Your task to perform on an android device: What's the weather like in Moscow? Image 0: 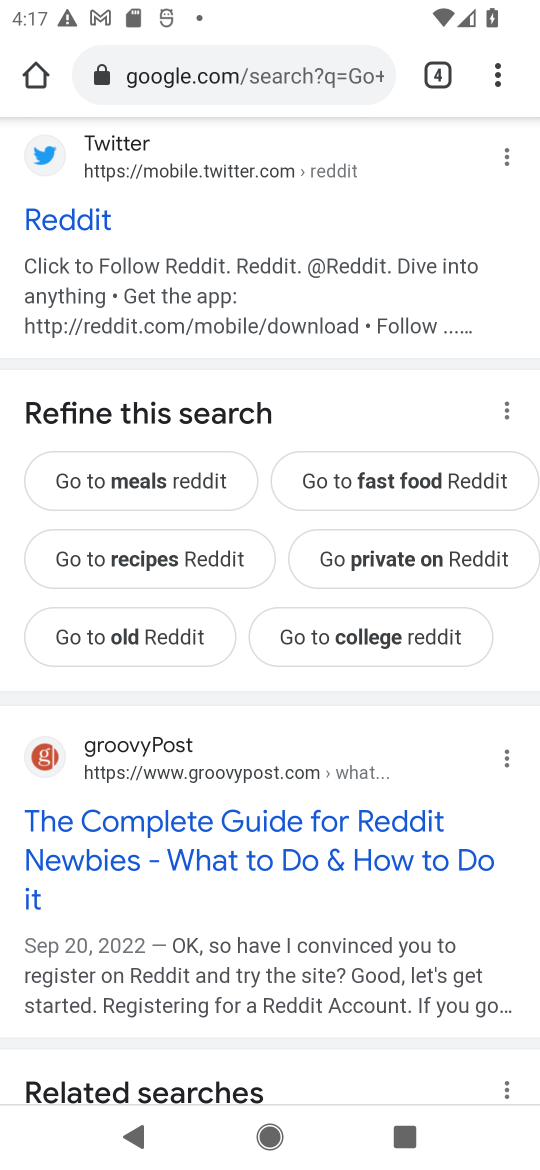
Step 0: press home button
Your task to perform on an android device: What's the weather like in Moscow? Image 1: 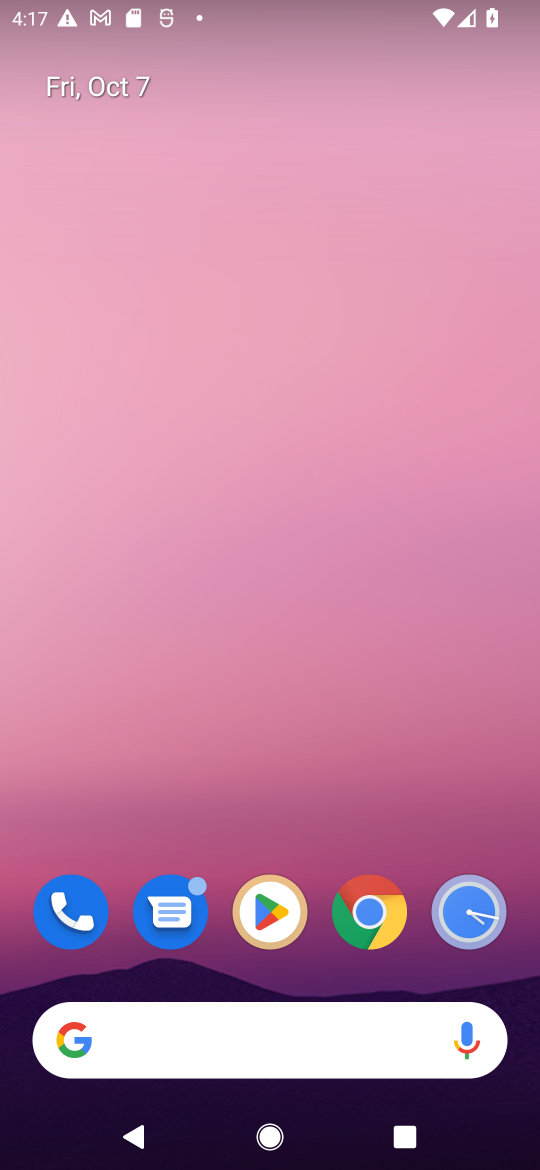
Step 1: drag from (208, 914) to (262, 453)
Your task to perform on an android device: What's the weather like in Moscow? Image 2: 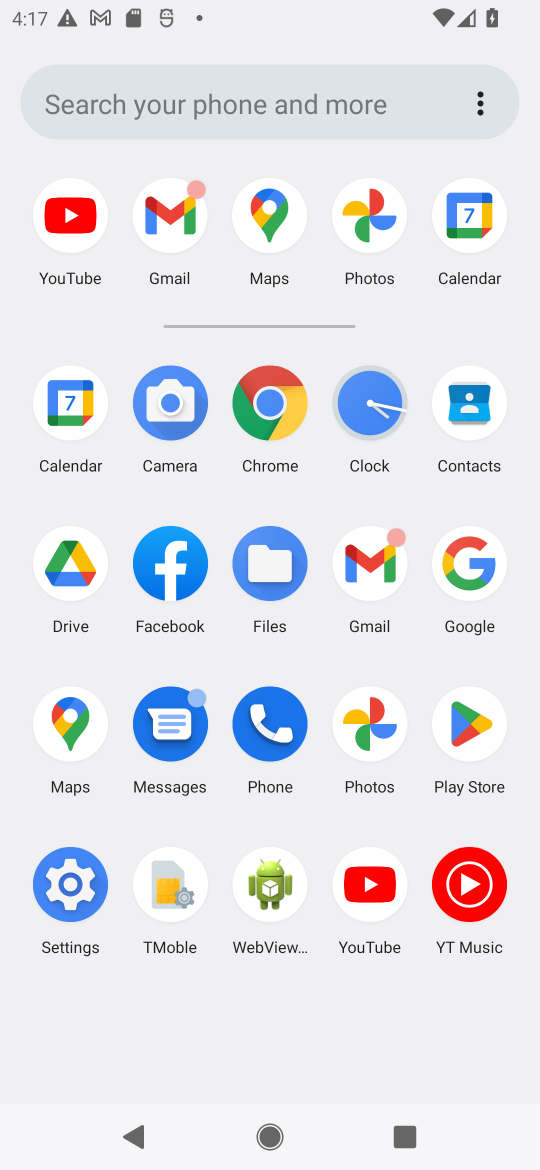
Step 2: click (468, 575)
Your task to perform on an android device: What's the weather like in Moscow? Image 3: 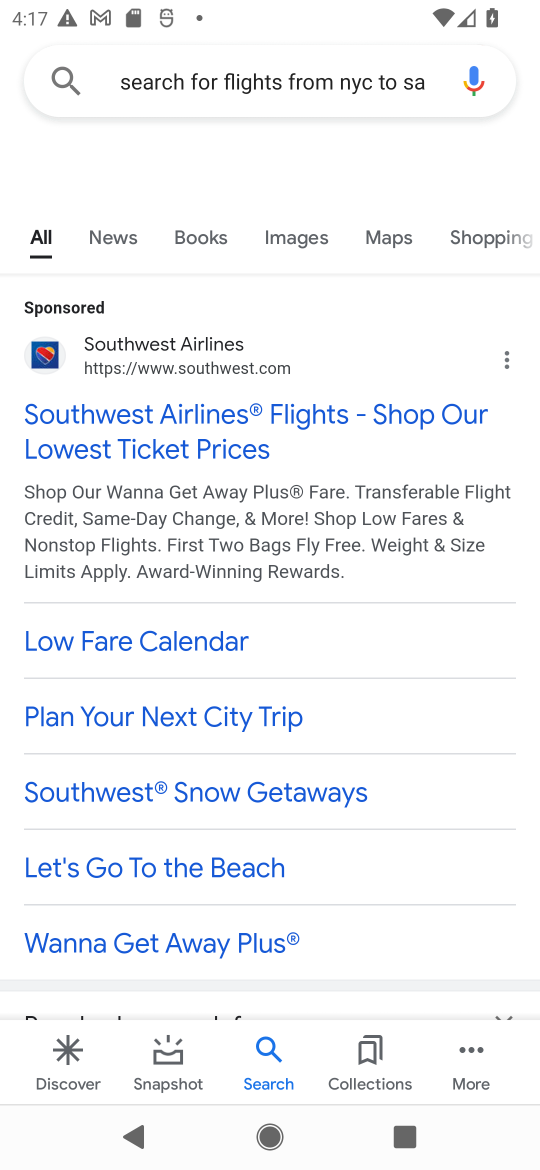
Step 3: click (337, 78)
Your task to perform on an android device: What's the weather like in Moscow? Image 4: 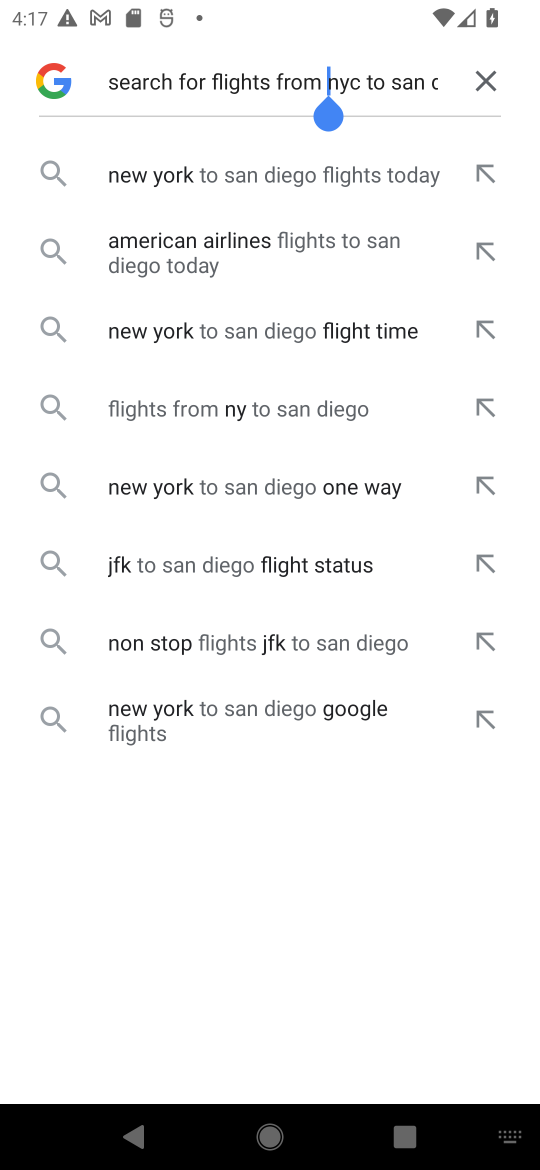
Step 4: click (486, 86)
Your task to perform on an android device: What's the weather like in Moscow? Image 5: 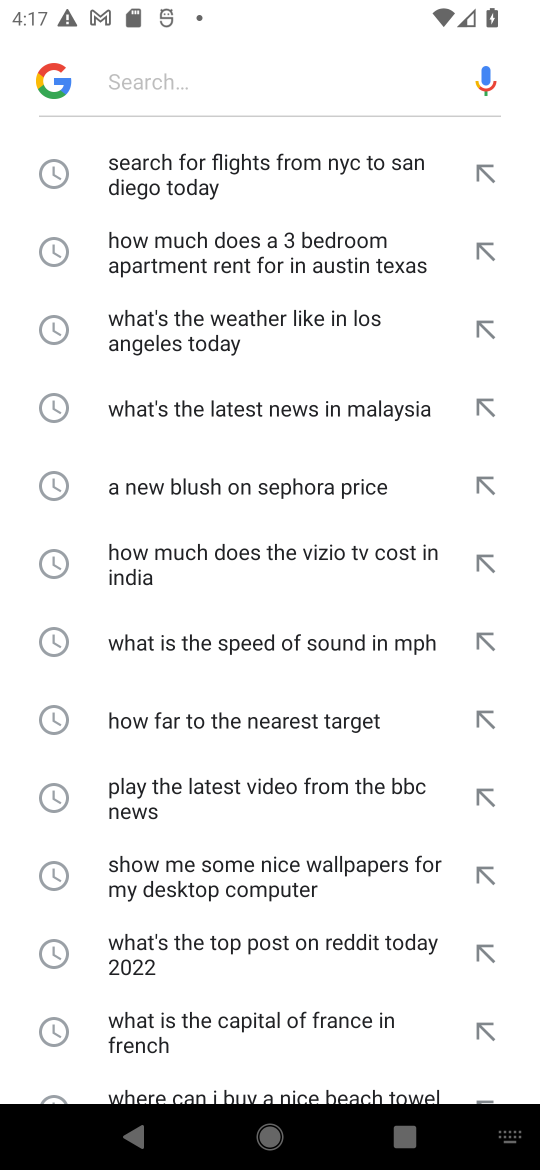
Step 5: click (319, 80)
Your task to perform on an android device: What's the weather like in Moscow? Image 6: 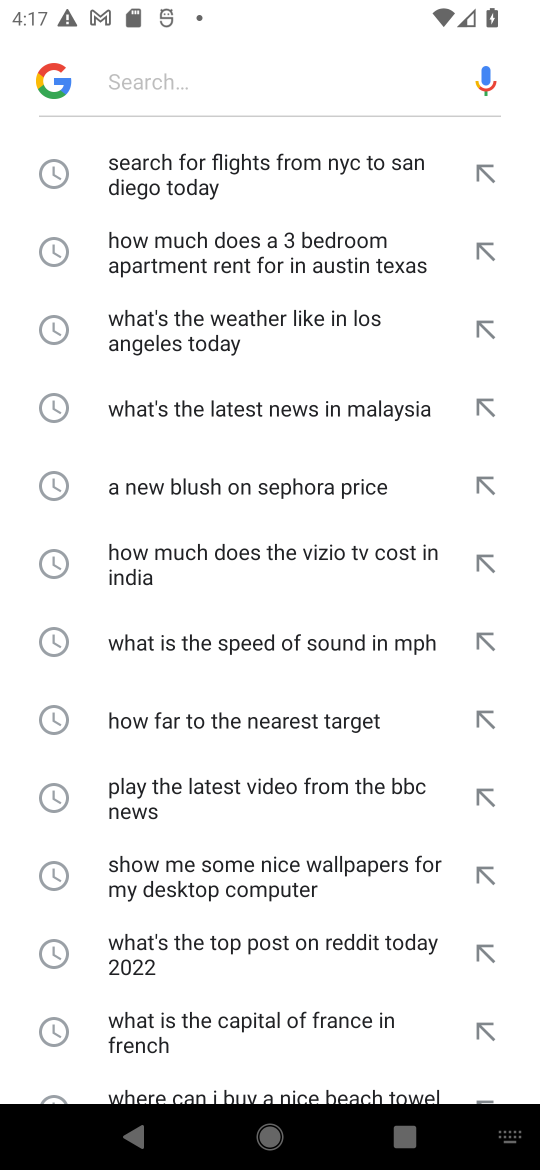
Step 6: type "What's the weather like in Moscow? "
Your task to perform on an android device: What's the weather like in Moscow? Image 7: 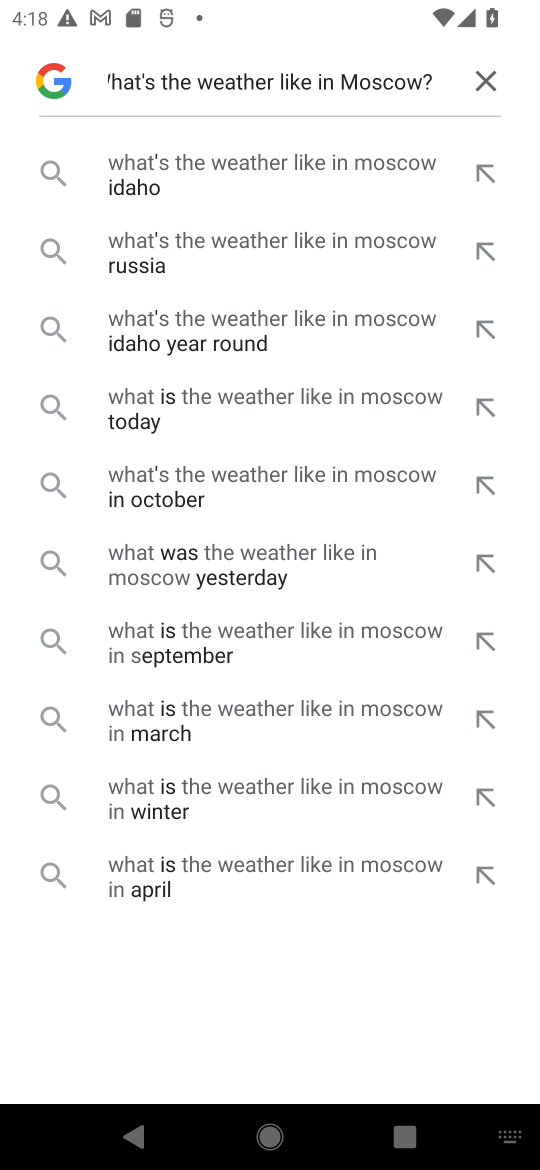
Step 7: click (361, 177)
Your task to perform on an android device: What's the weather like in Moscow? Image 8: 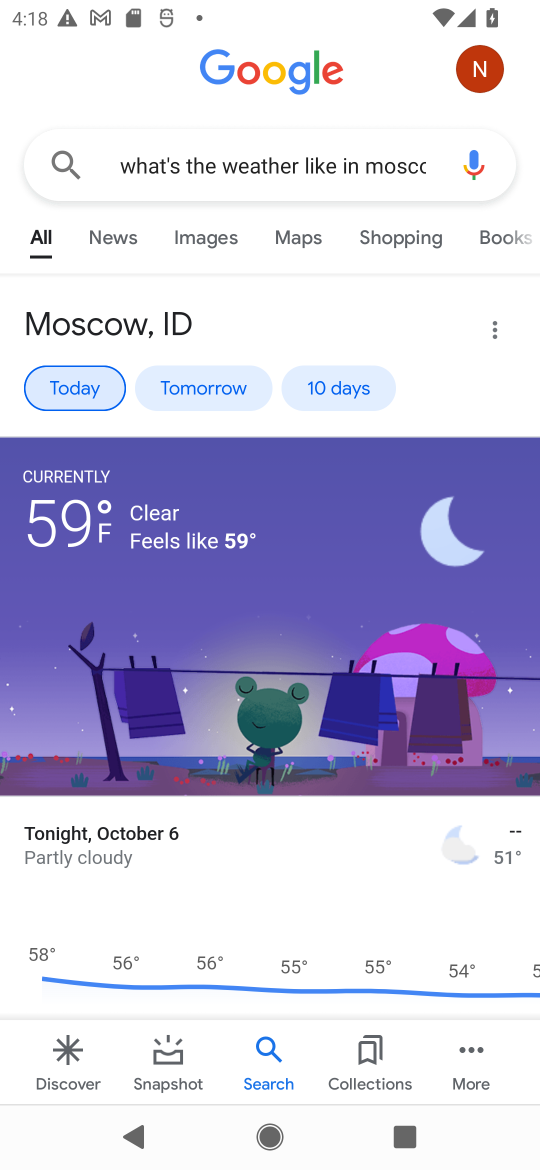
Step 8: task complete